Your task to perform on an android device: toggle airplane mode Image 0: 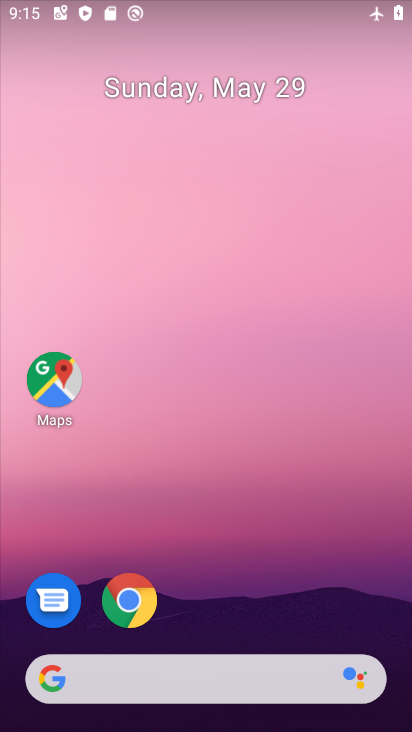
Step 0: drag from (217, 727) to (165, 7)
Your task to perform on an android device: toggle airplane mode Image 1: 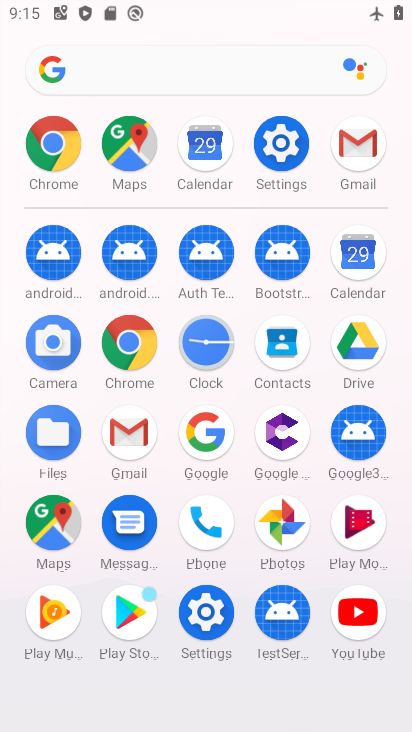
Step 1: click (293, 139)
Your task to perform on an android device: toggle airplane mode Image 2: 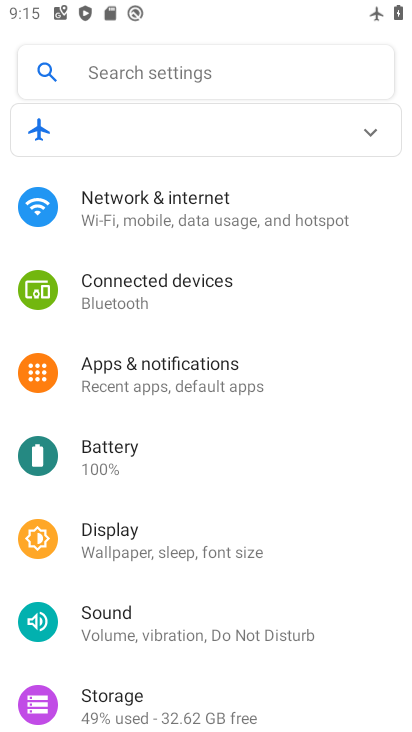
Step 2: click (116, 209)
Your task to perform on an android device: toggle airplane mode Image 3: 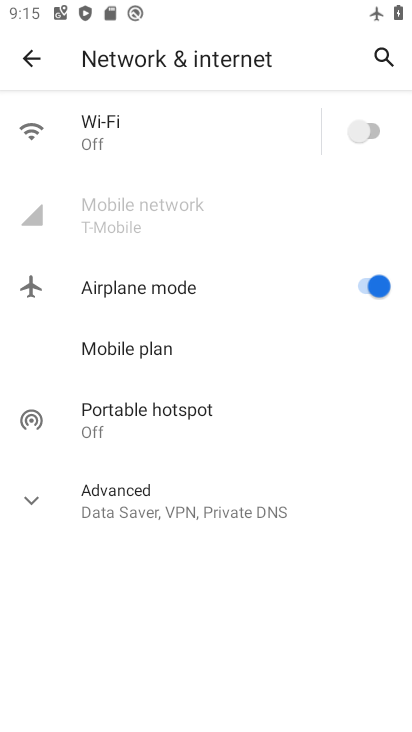
Step 3: click (371, 285)
Your task to perform on an android device: toggle airplane mode Image 4: 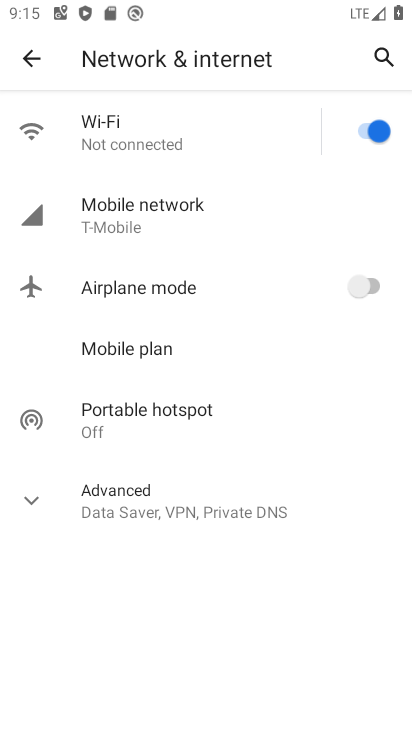
Step 4: task complete